Your task to perform on an android device: install app "Lyft - Rideshare, Bikes, Scooters & Transit" Image 0: 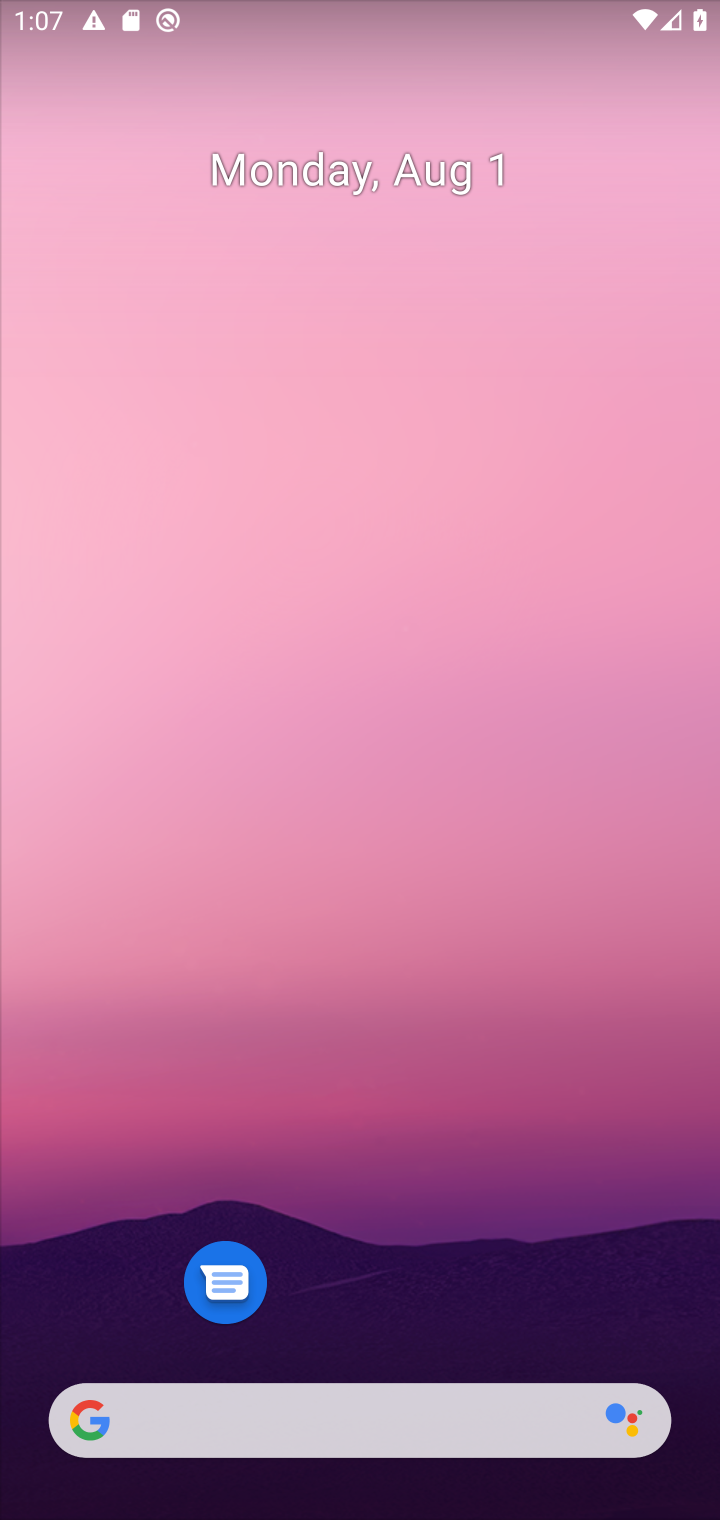
Step 0: drag from (370, 1372) to (586, 777)
Your task to perform on an android device: install app "Lyft - Rideshare, Bikes, Scooters & Transit" Image 1: 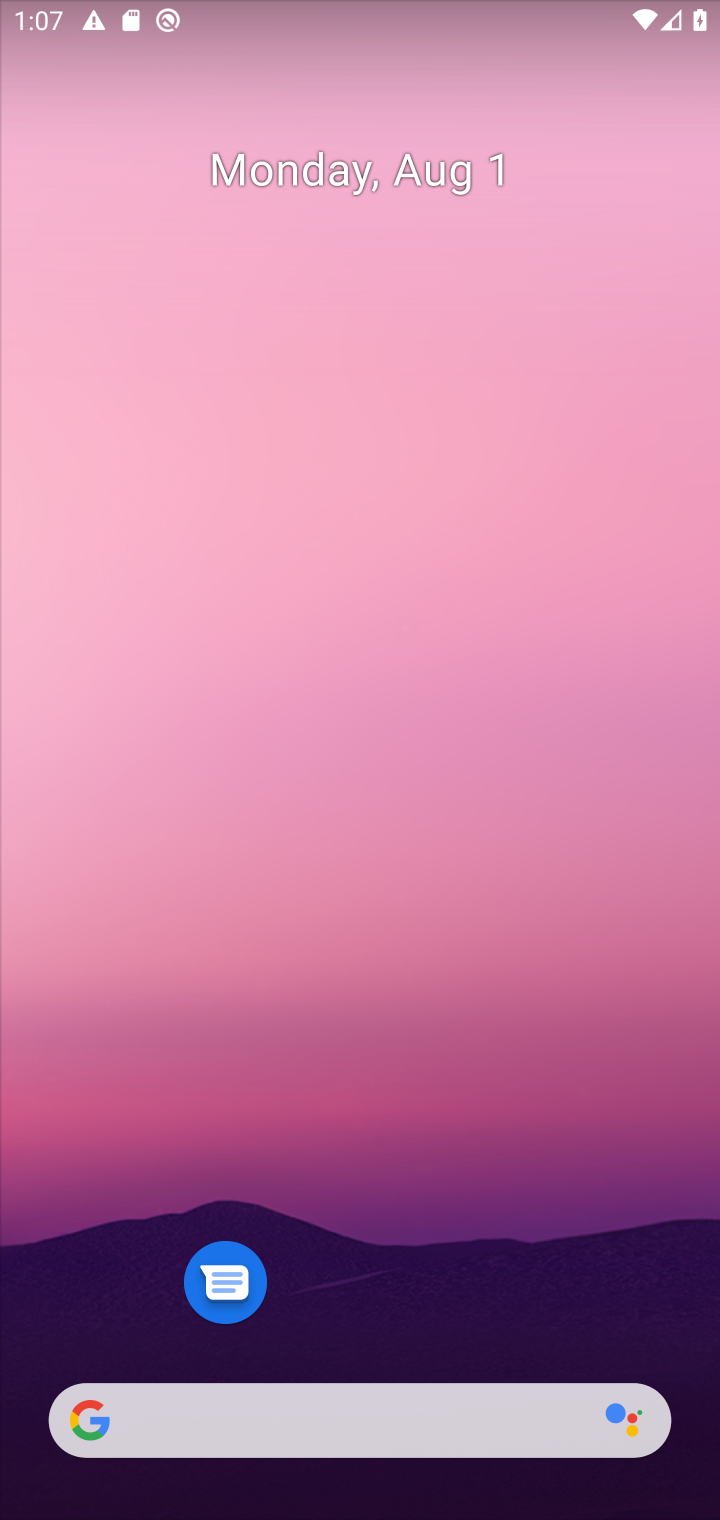
Step 1: drag from (385, 1293) to (389, 51)
Your task to perform on an android device: install app "Lyft - Rideshare, Bikes, Scooters & Transit" Image 2: 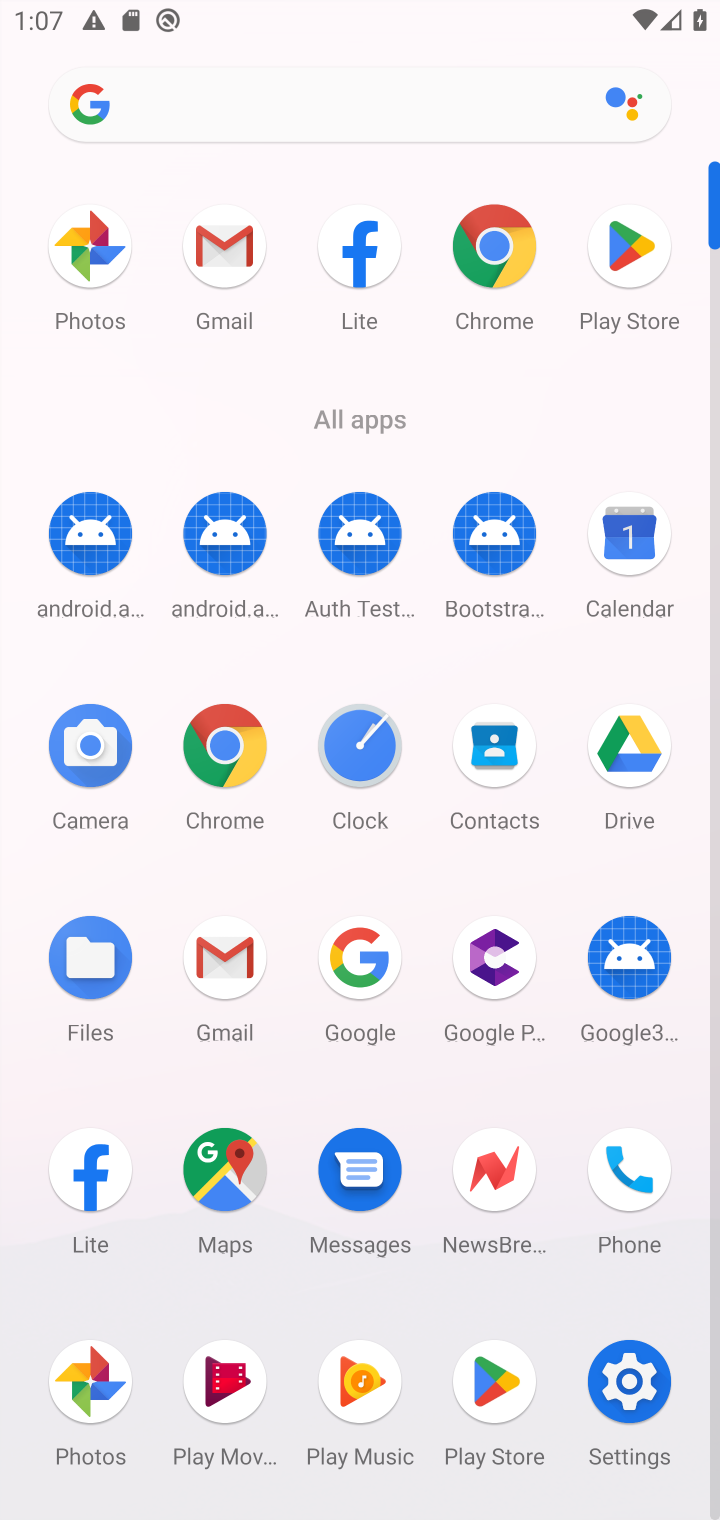
Step 2: click (493, 1385)
Your task to perform on an android device: install app "Lyft - Rideshare, Bikes, Scooters & Transit" Image 3: 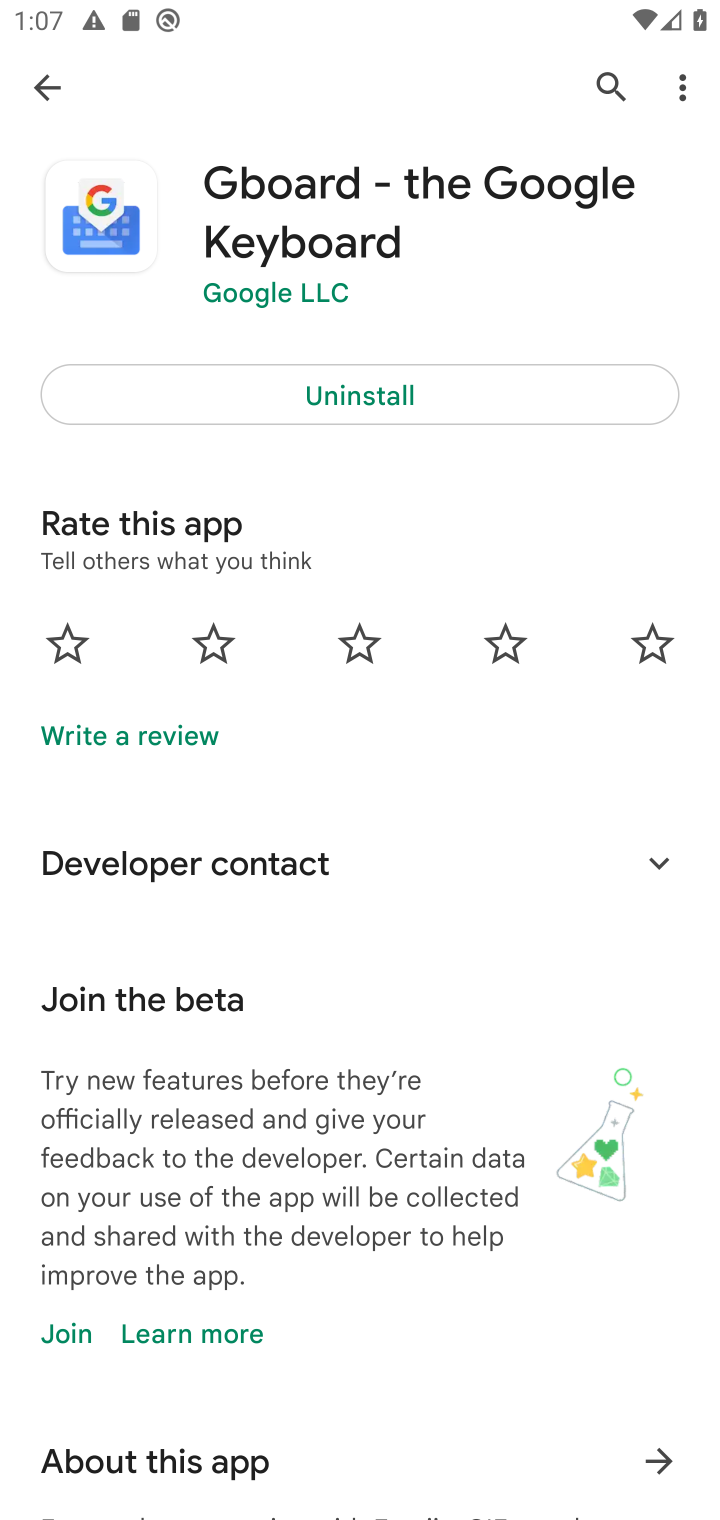
Step 3: click (51, 80)
Your task to perform on an android device: install app "Lyft - Rideshare, Bikes, Scooters & Transit" Image 4: 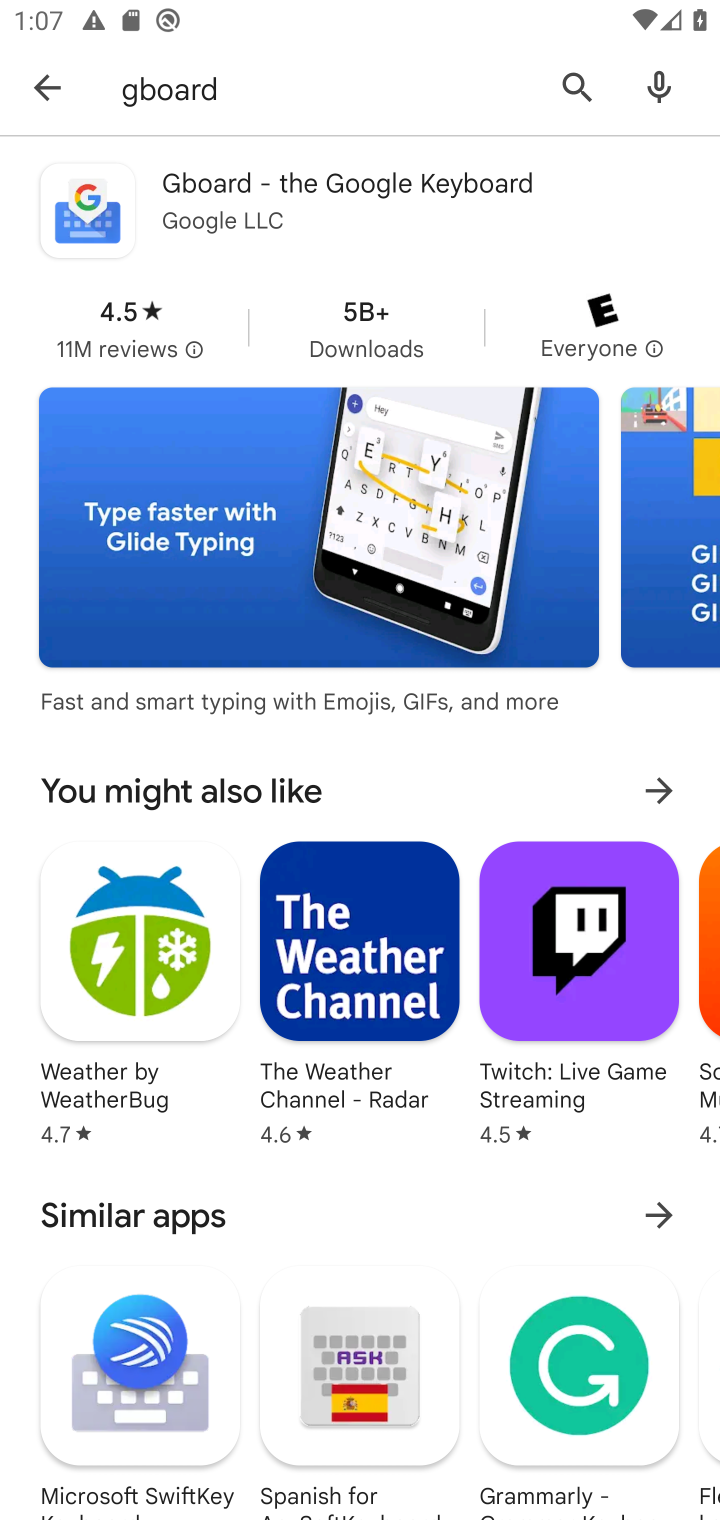
Step 4: click (62, 90)
Your task to perform on an android device: install app "Lyft - Rideshare, Bikes, Scooters & Transit" Image 5: 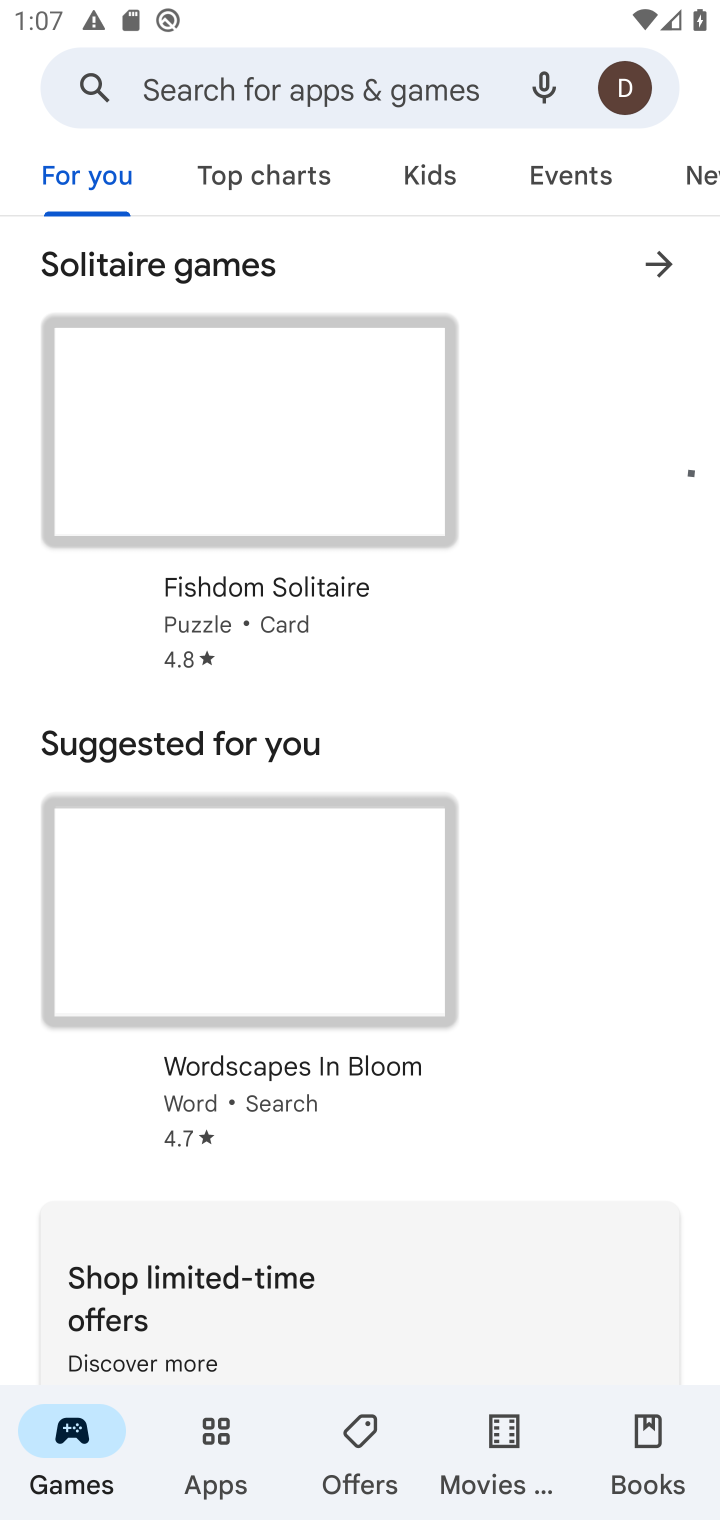
Step 5: click (168, 65)
Your task to perform on an android device: install app "Lyft - Rideshare, Bikes, Scooters & Transit" Image 6: 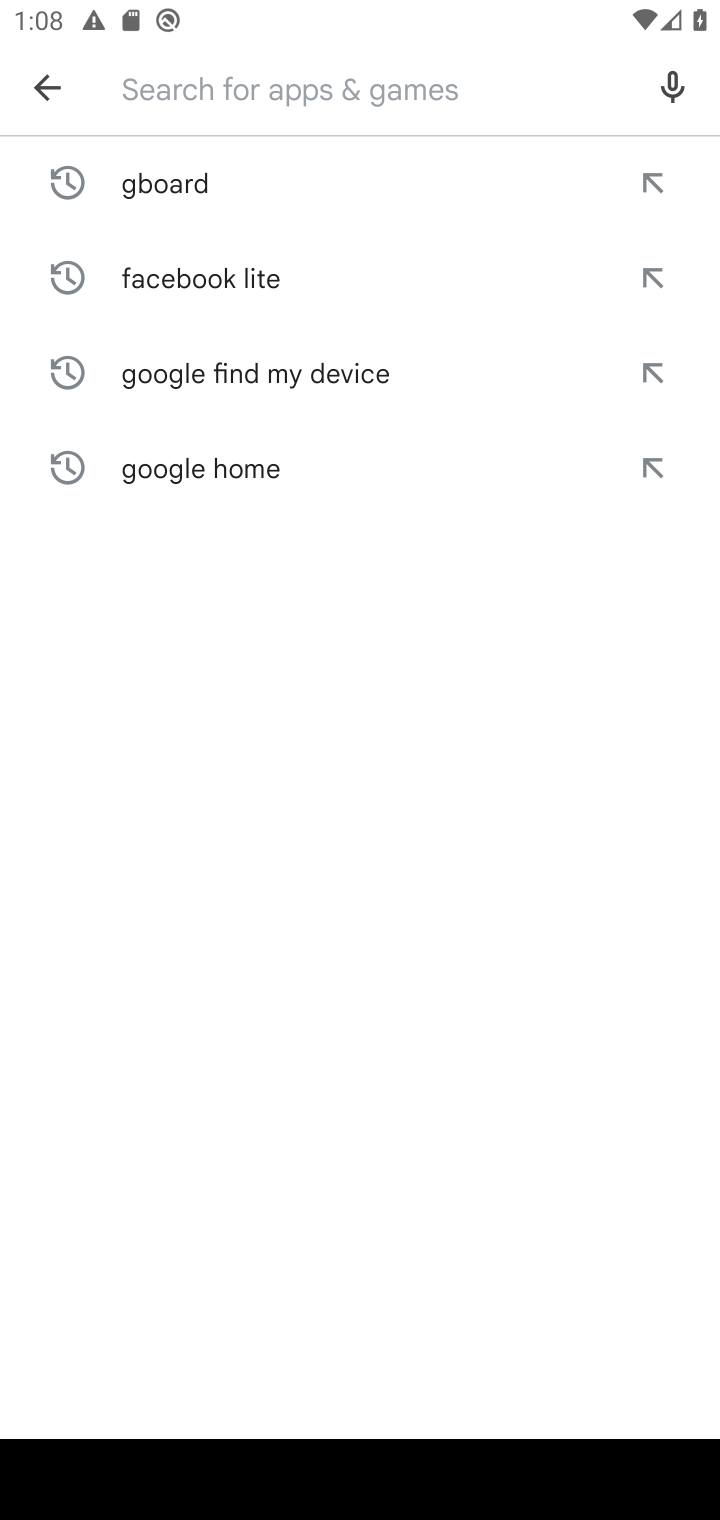
Step 6: type "Lyft - Rideshare, Bikes, Scooters & Transit"
Your task to perform on an android device: install app "Lyft - Rideshare, Bikes, Scooters & Transit" Image 7: 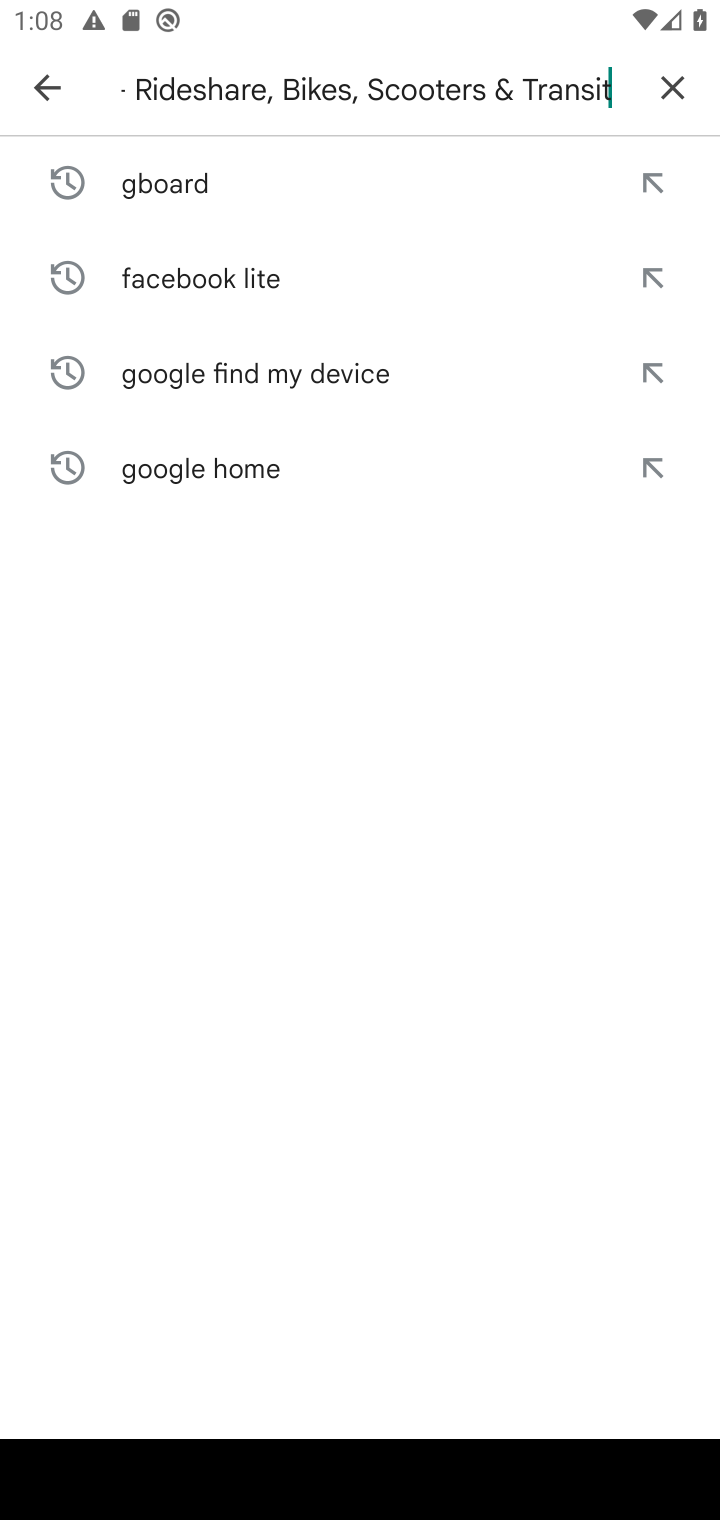
Step 7: type ""
Your task to perform on an android device: install app "Lyft - Rideshare, Bikes, Scooters & Transit" Image 8: 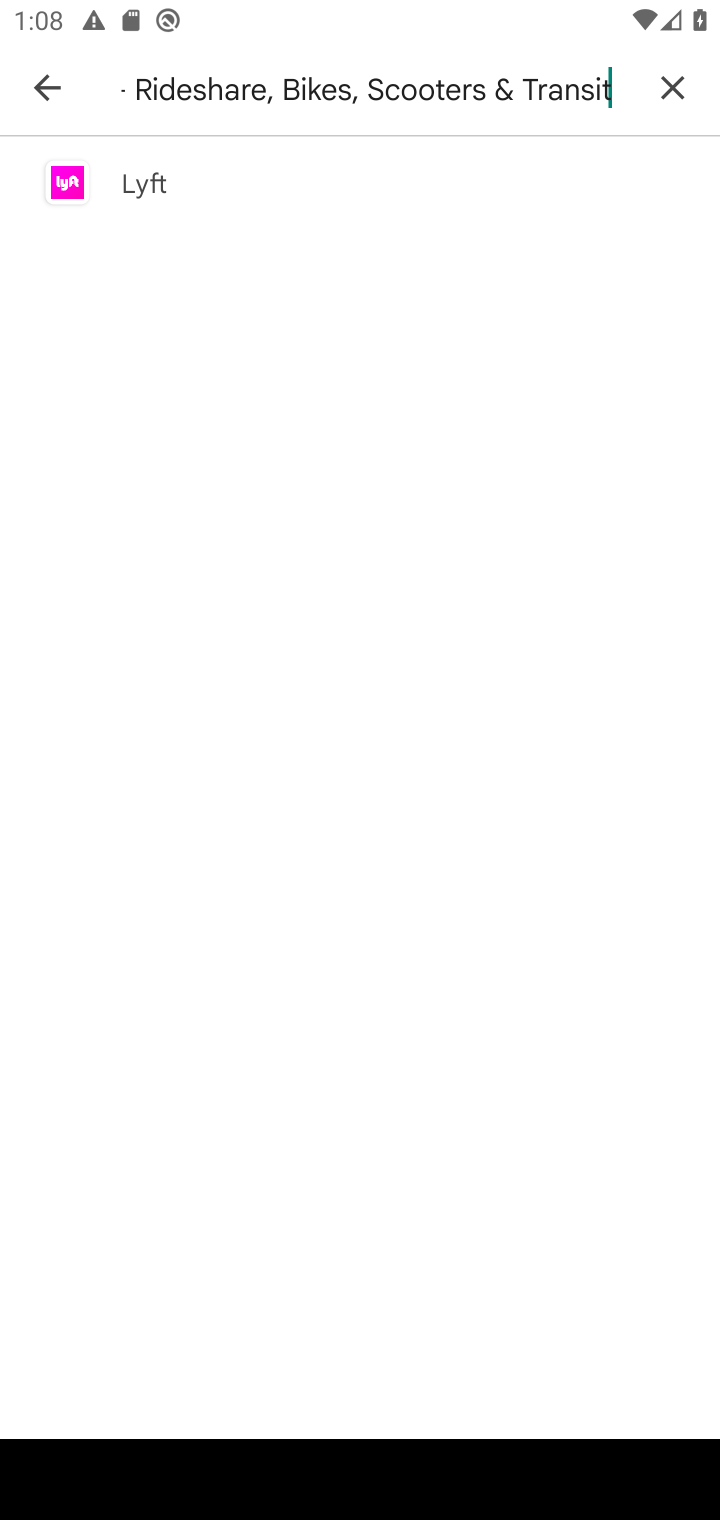
Step 8: click (171, 184)
Your task to perform on an android device: install app "Lyft - Rideshare, Bikes, Scooters & Transit" Image 9: 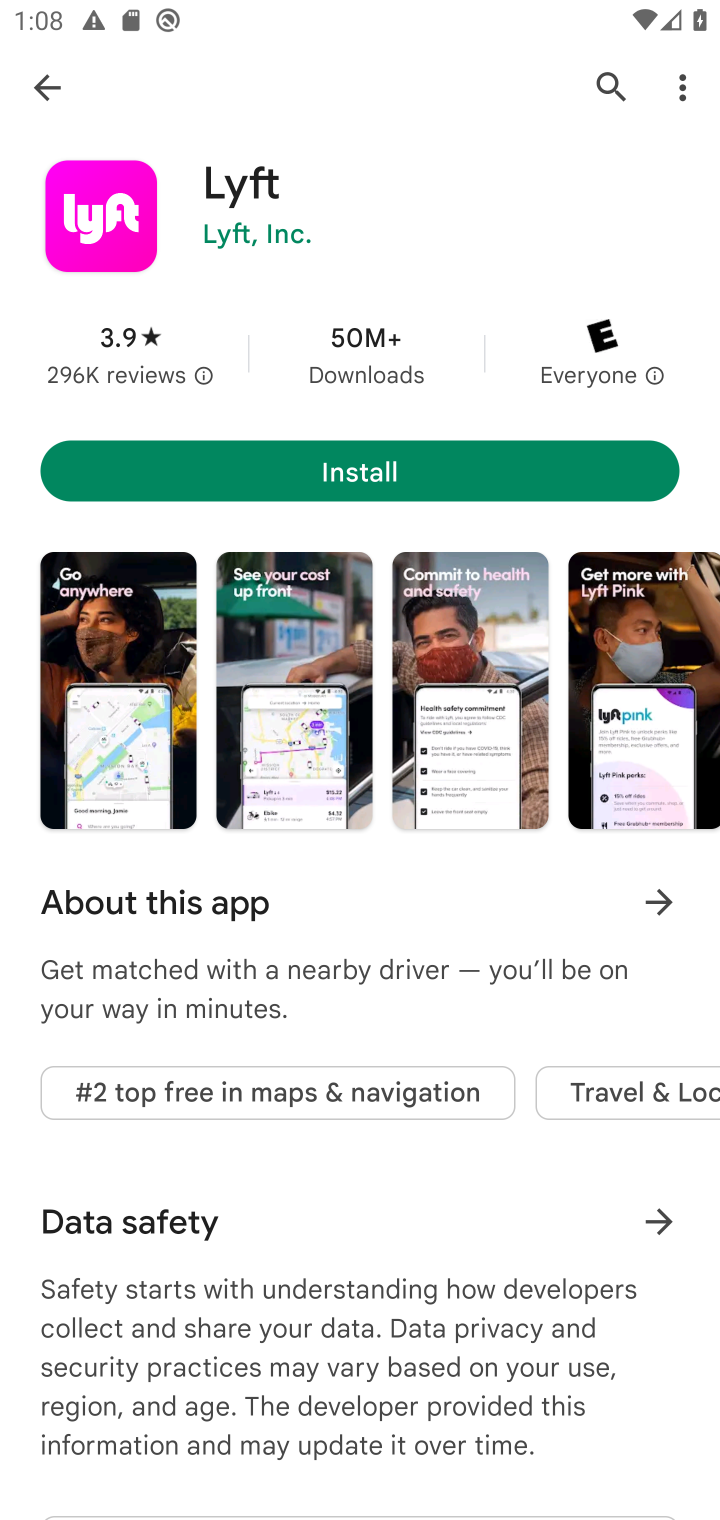
Step 9: click (324, 470)
Your task to perform on an android device: install app "Lyft - Rideshare, Bikes, Scooters & Transit" Image 10: 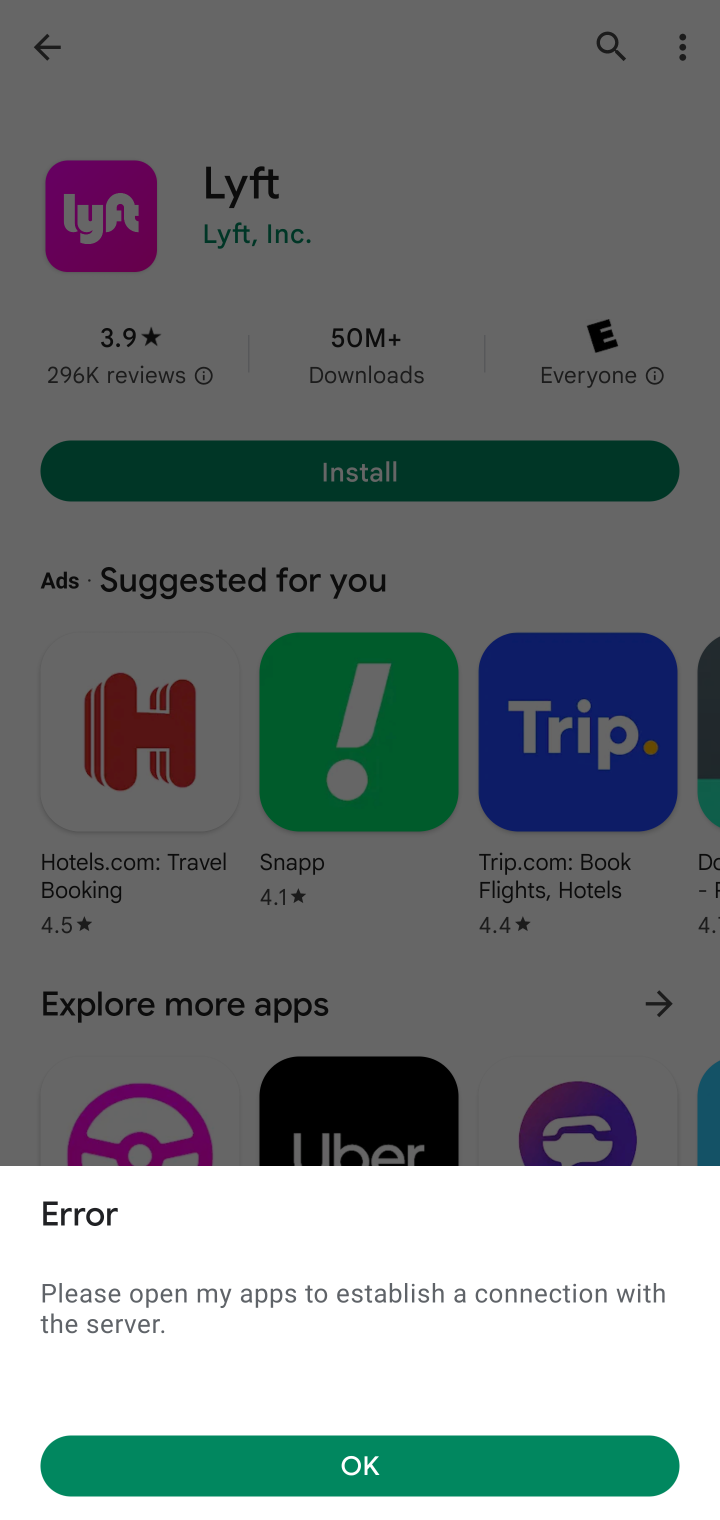
Step 10: click (272, 1470)
Your task to perform on an android device: install app "Lyft - Rideshare, Bikes, Scooters & Transit" Image 11: 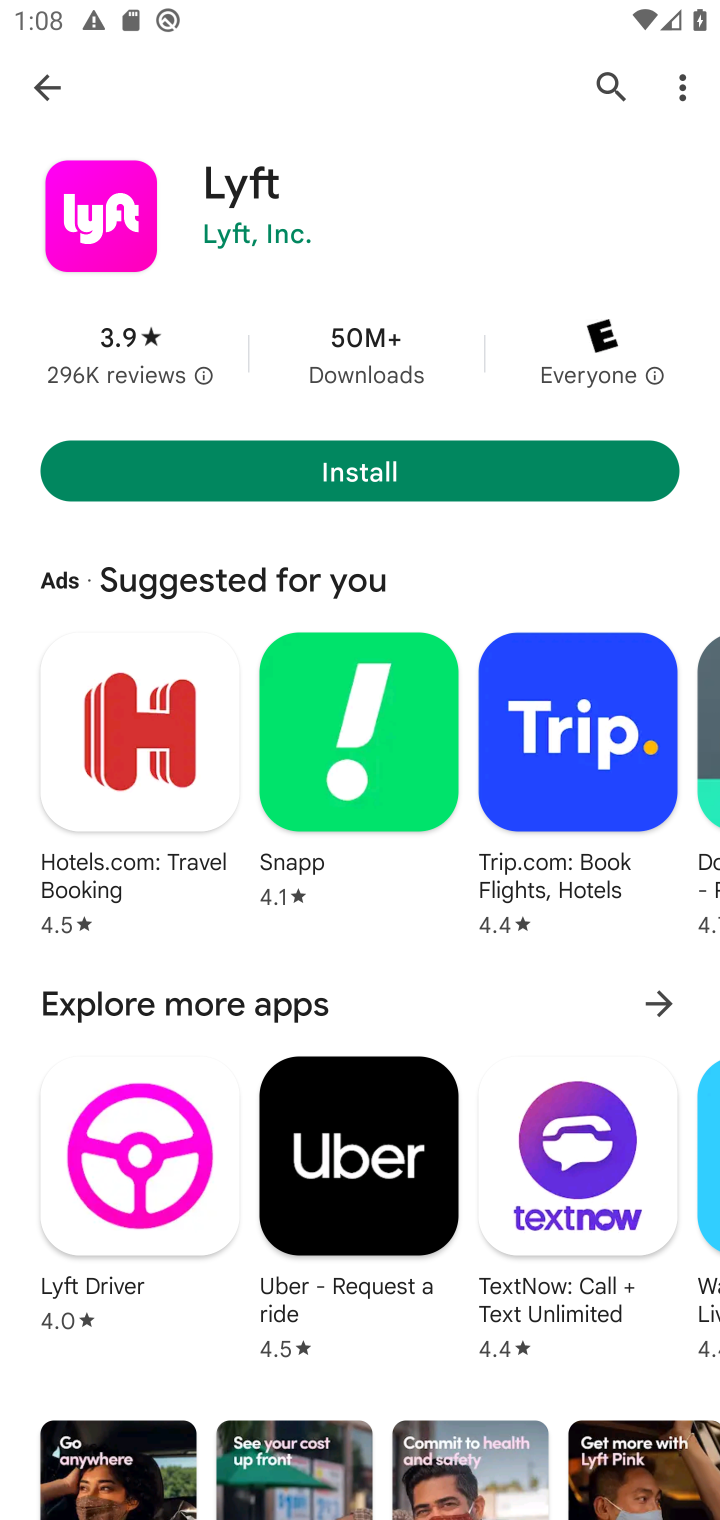
Step 11: click (402, 477)
Your task to perform on an android device: install app "Lyft - Rideshare, Bikes, Scooters & Transit" Image 12: 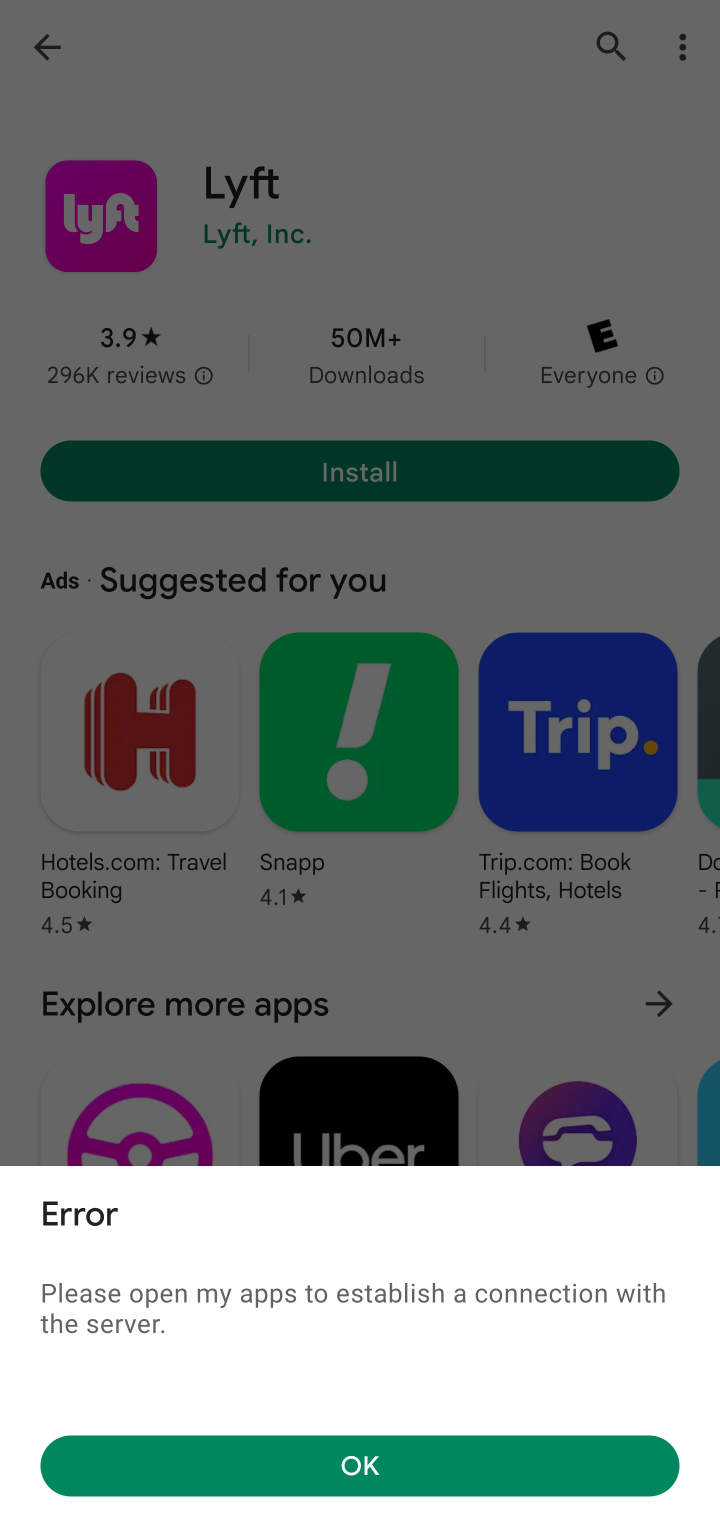
Step 12: click (364, 1501)
Your task to perform on an android device: install app "Lyft - Rideshare, Bikes, Scooters & Transit" Image 13: 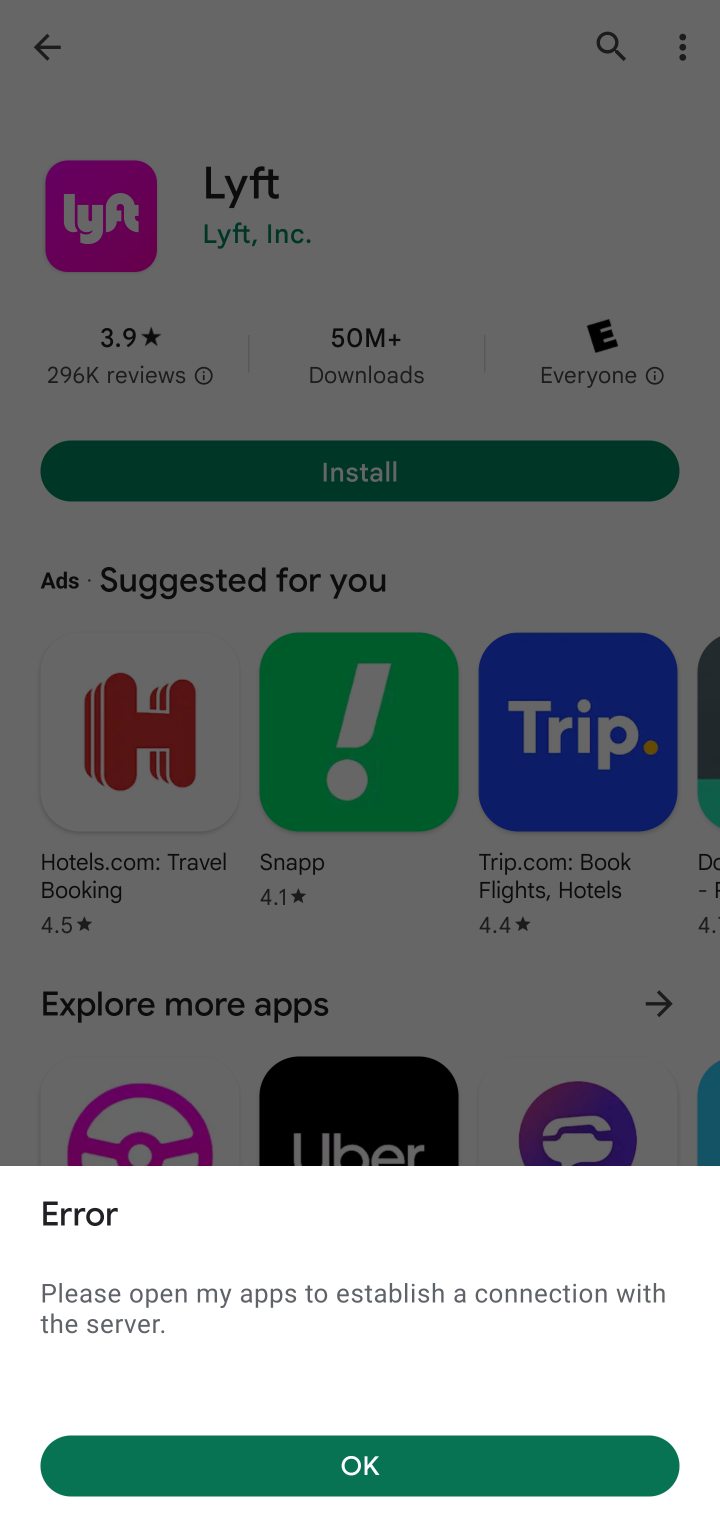
Step 13: task complete